Your task to perform on an android device: turn on bluetooth scan Image 0: 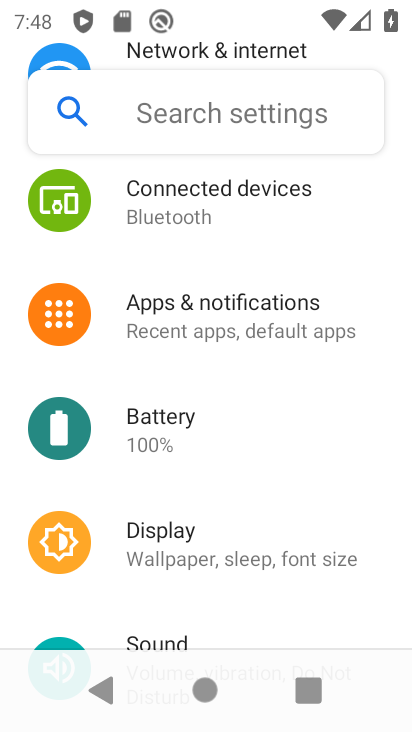
Step 0: drag from (279, 599) to (289, 225)
Your task to perform on an android device: turn on bluetooth scan Image 1: 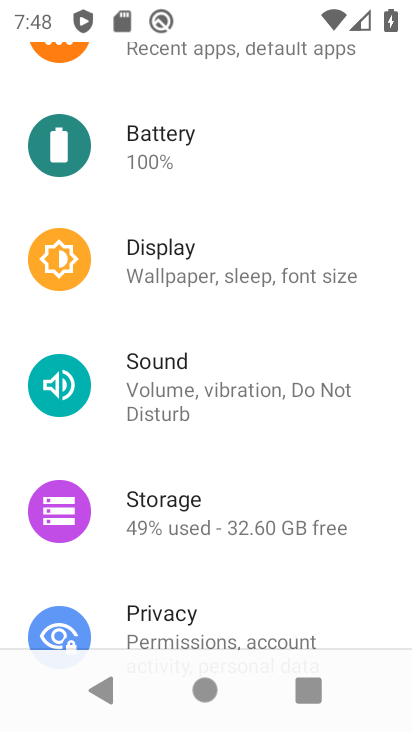
Step 1: drag from (235, 618) to (257, 276)
Your task to perform on an android device: turn on bluetooth scan Image 2: 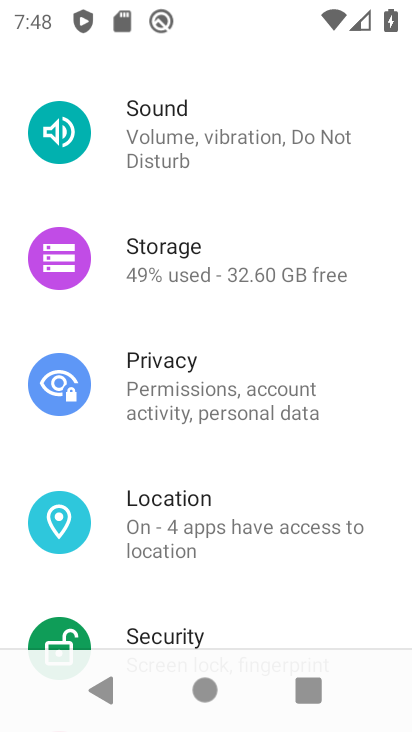
Step 2: click (154, 503)
Your task to perform on an android device: turn on bluetooth scan Image 3: 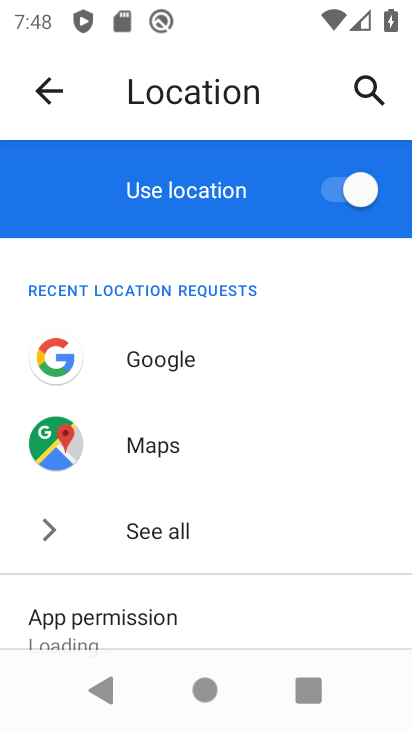
Step 3: drag from (231, 628) to (247, 242)
Your task to perform on an android device: turn on bluetooth scan Image 4: 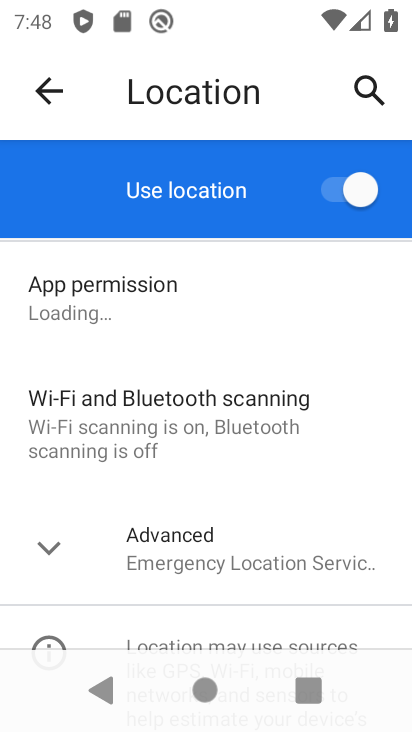
Step 4: click (114, 423)
Your task to perform on an android device: turn on bluetooth scan Image 5: 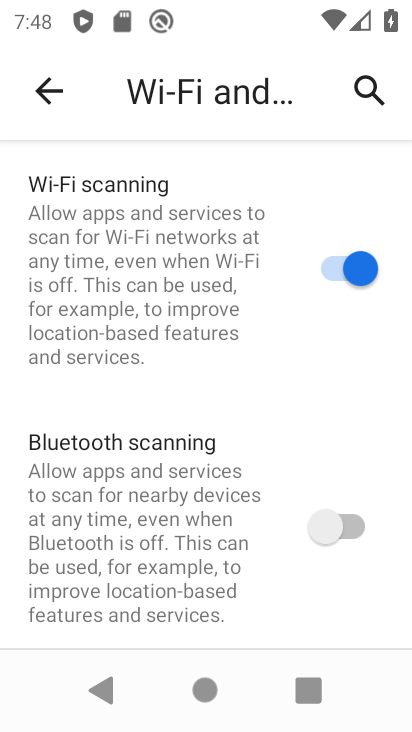
Step 5: click (361, 520)
Your task to perform on an android device: turn on bluetooth scan Image 6: 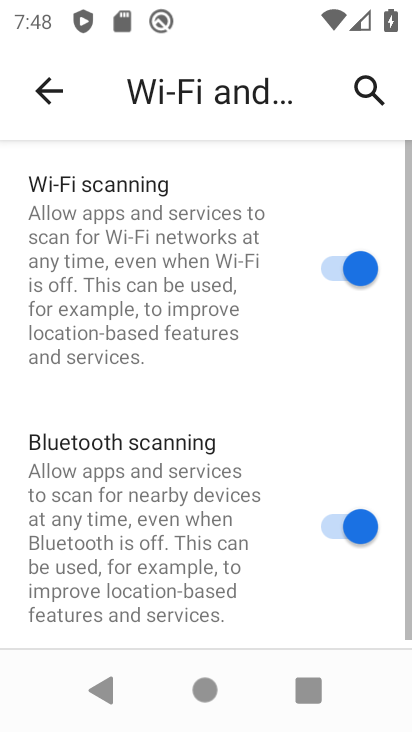
Step 6: task complete